Your task to perform on an android device: turn off translation in the chrome app Image 0: 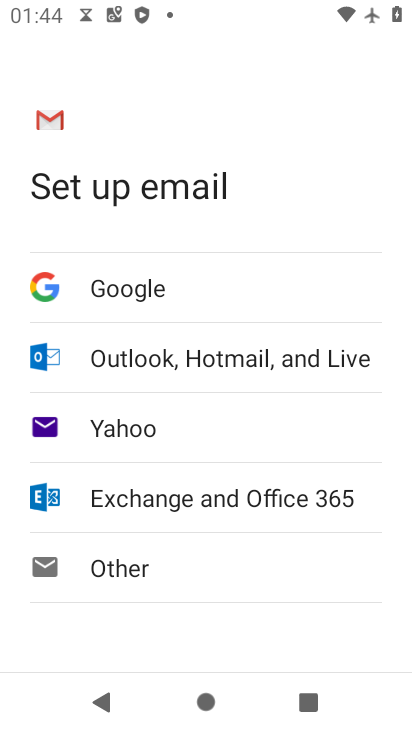
Step 0: press home button
Your task to perform on an android device: turn off translation in the chrome app Image 1: 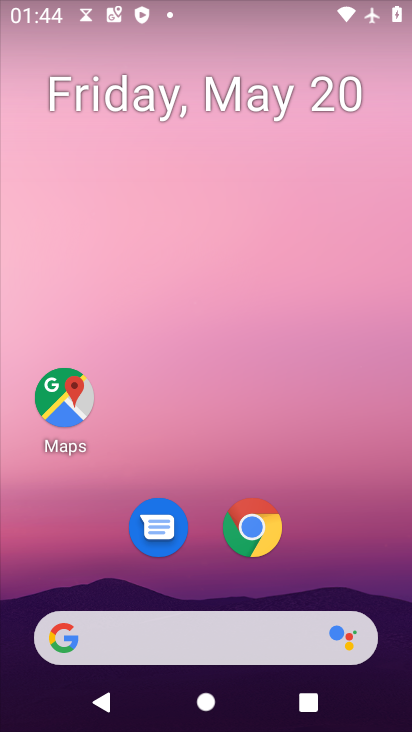
Step 1: drag from (184, 569) to (229, 235)
Your task to perform on an android device: turn off translation in the chrome app Image 2: 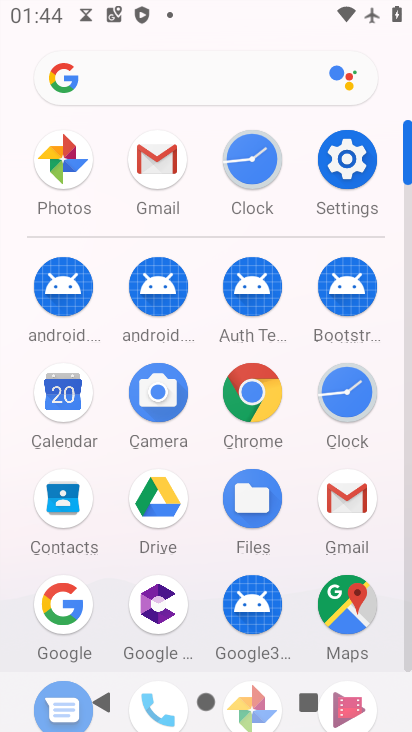
Step 2: click (256, 405)
Your task to perform on an android device: turn off translation in the chrome app Image 3: 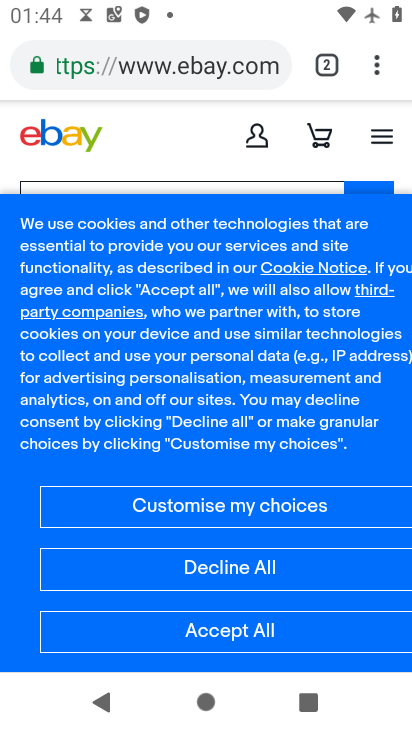
Step 3: drag from (378, 69) to (268, 589)
Your task to perform on an android device: turn off translation in the chrome app Image 4: 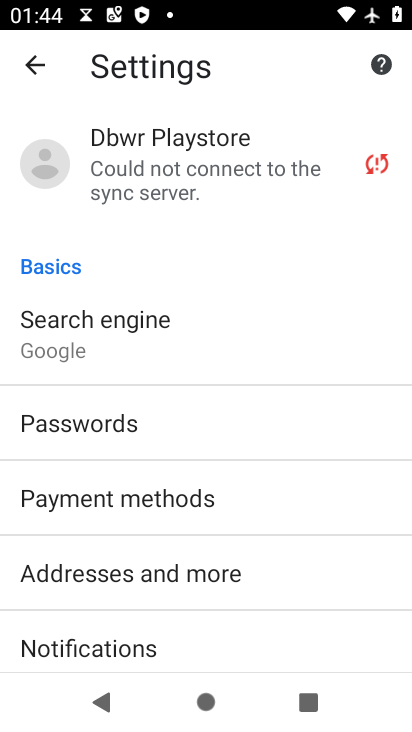
Step 4: drag from (246, 501) to (318, 262)
Your task to perform on an android device: turn off translation in the chrome app Image 5: 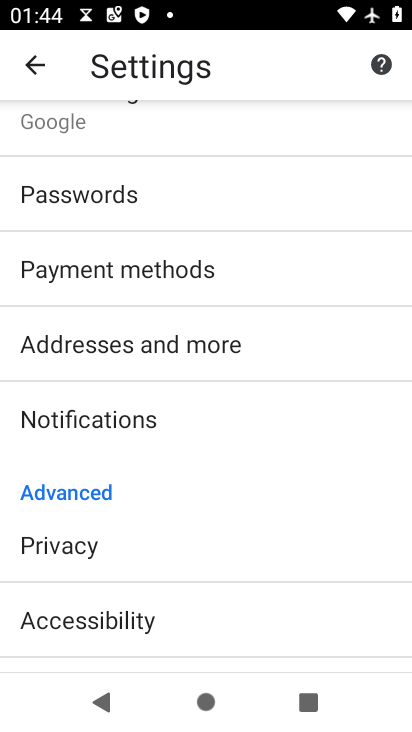
Step 5: drag from (233, 610) to (275, 326)
Your task to perform on an android device: turn off translation in the chrome app Image 6: 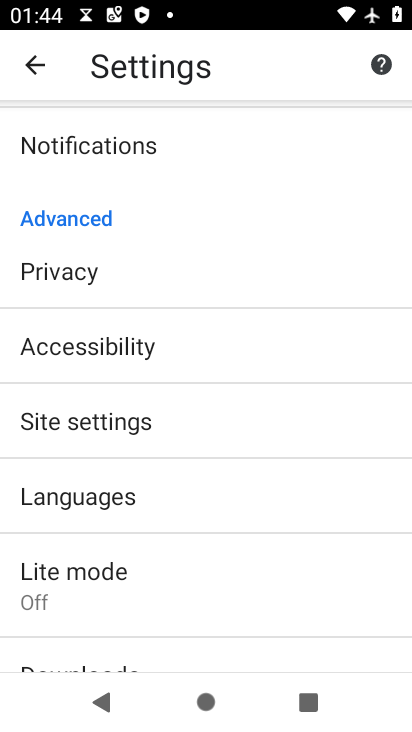
Step 6: click (106, 502)
Your task to perform on an android device: turn off translation in the chrome app Image 7: 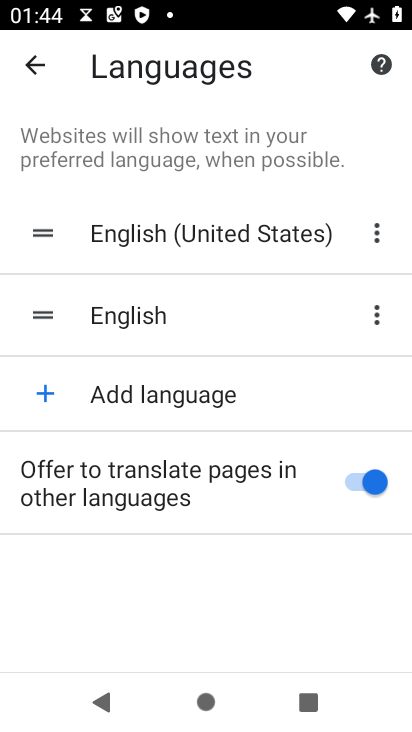
Step 7: click (357, 479)
Your task to perform on an android device: turn off translation in the chrome app Image 8: 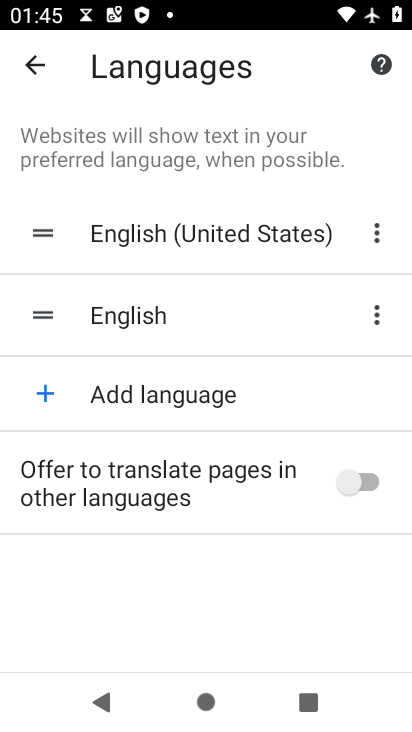
Step 8: task complete